Your task to perform on an android device: Open location settings Image 0: 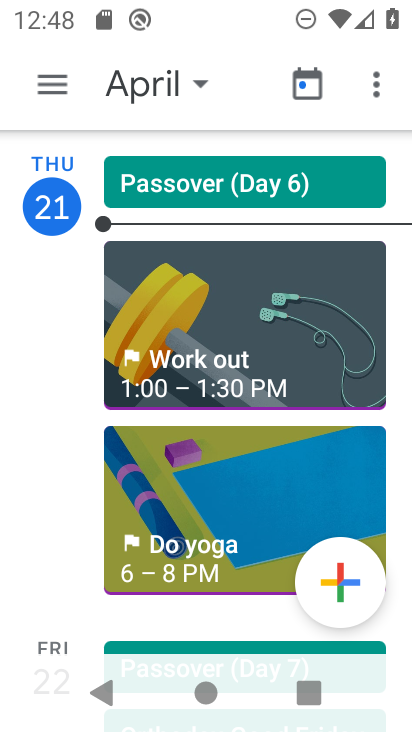
Step 0: press home button
Your task to perform on an android device: Open location settings Image 1: 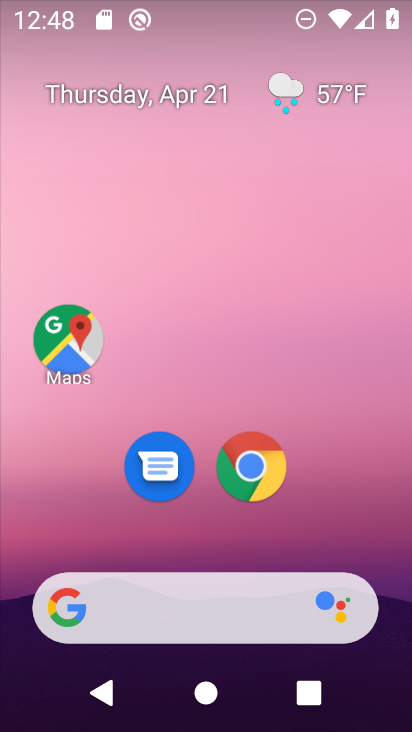
Step 1: drag from (319, 489) to (376, 76)
Your task to perform on an android device: Open location settings Image 2: 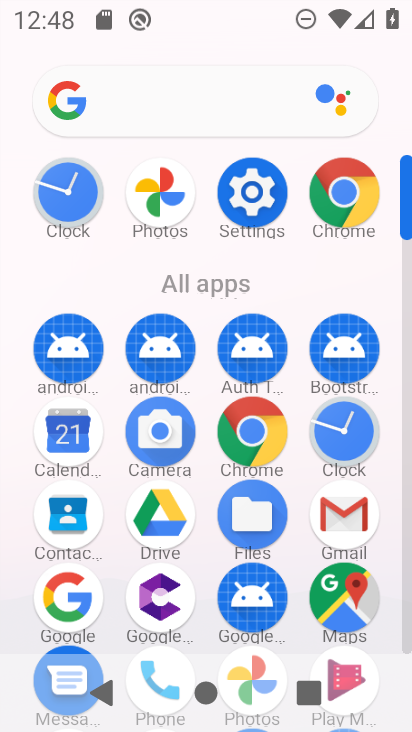
Step 2: click (276, 179)
Your task to perform on an android device: Open location settings Image 3: 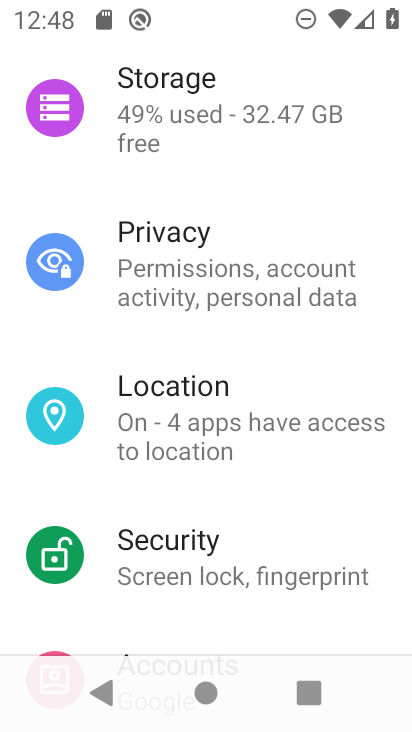
Step 3: click (214, 435)
Your task to perform on an android device: Open location settings Image 4: 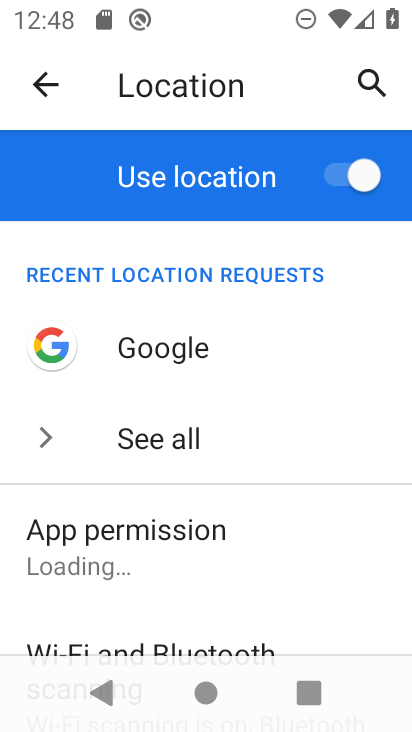
Step 4: task complete